Your task to perform on an android device: Open Reddit.com Image 0: 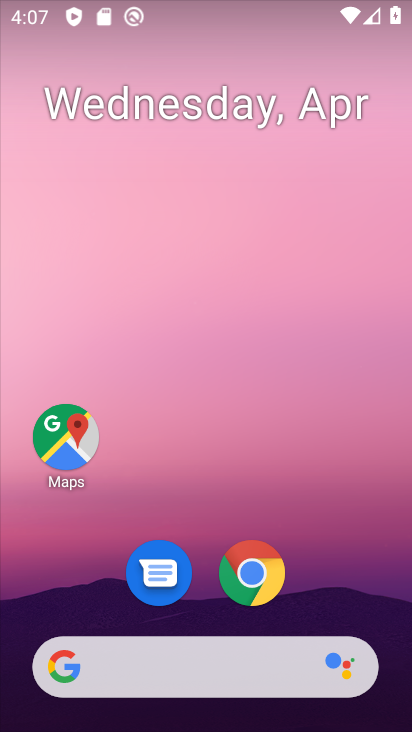
Step 0: click (248, 577)
Your task to perform on an android device: Open Reddit.com Image 1: 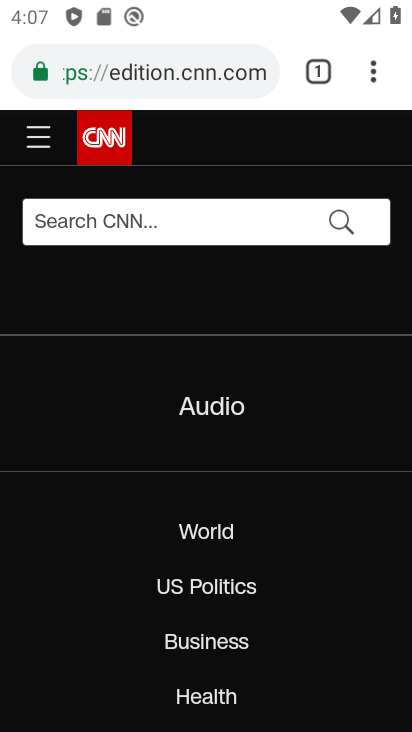
Step 1: click (220, 66)
Your task to perform on an android device: Open Reddit.com Image 2: 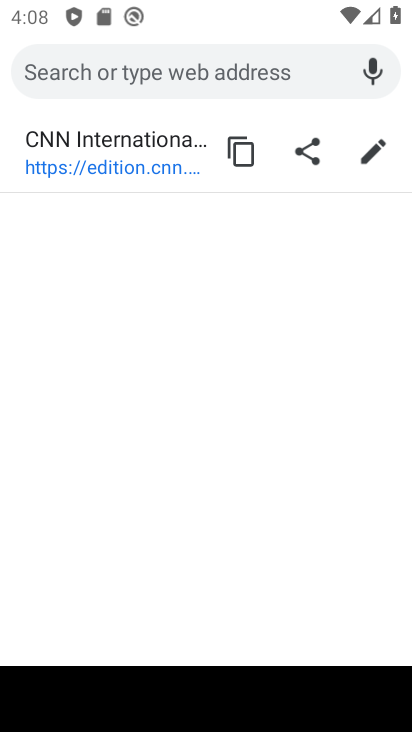
Step 2: type "reddit.com"
Your task to perform on an android device: Open Reddit.com Image 3: 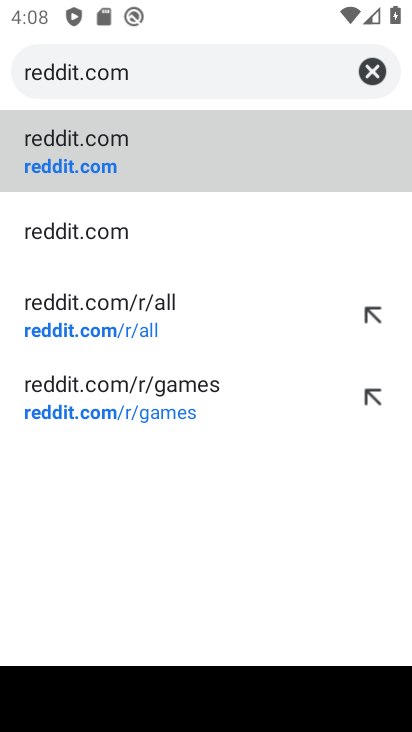
Step 3: click (109, 166)
Your task to perform on an android device: Open Reddit.com Image 4: 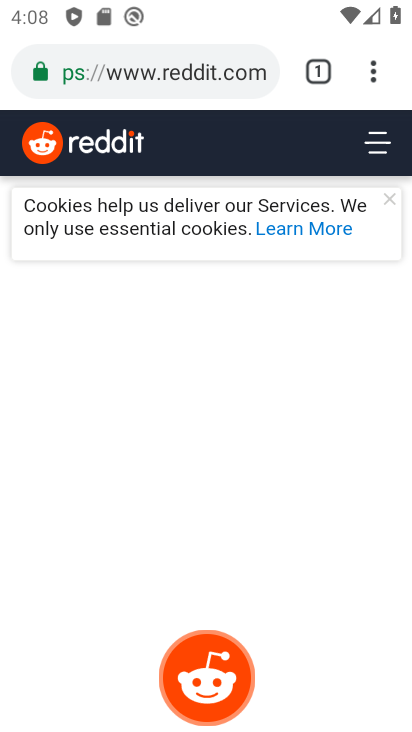
Step 4: task complete